Your task to perform on an android device: open app "Firefox Browser" Image 0: 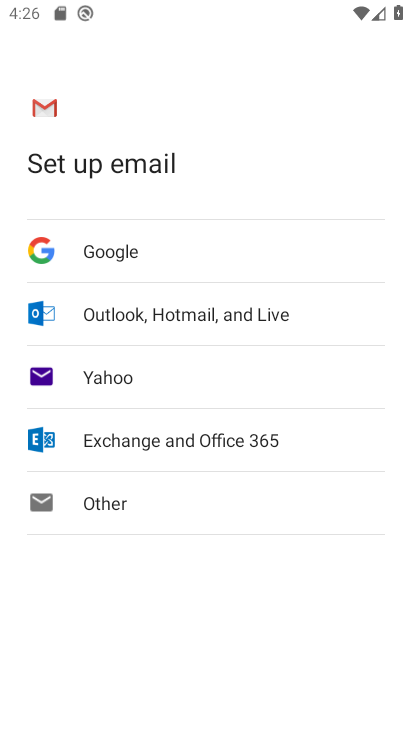
Step 0: press home button
Your task to perform on an android device: open app "Firefox Browser" Image 1: 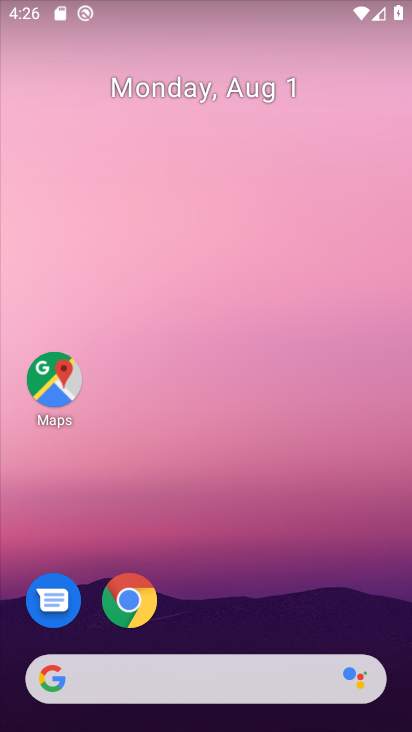
Step 1: drag from (311, 575) to (217, 1)
Your task to perform on an android device: open app "Firefox Browser" Image 2: 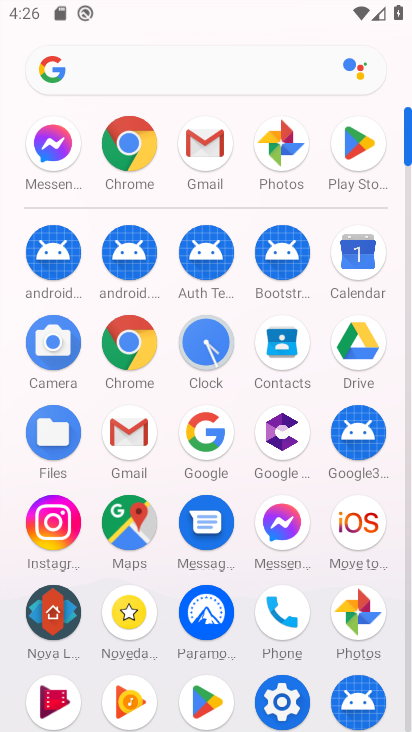
Step 2: click (354, 144)
Your task to perform on an android device: open app "Firefox Browser" Image 3: 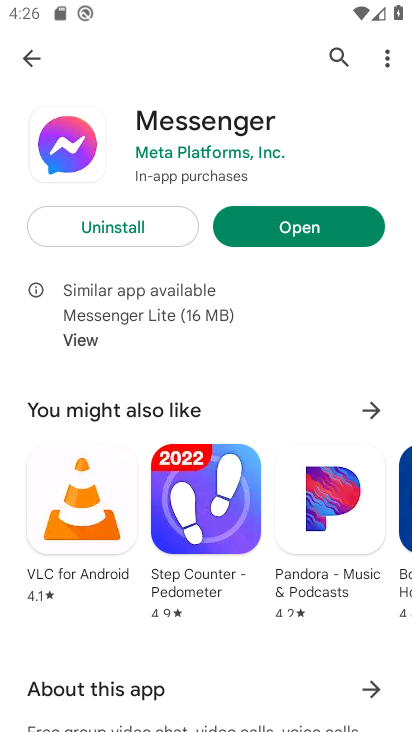
Step 3: click (334, 52)
Your task to perform on an android device: open app "Firefox Browser" Image 4: 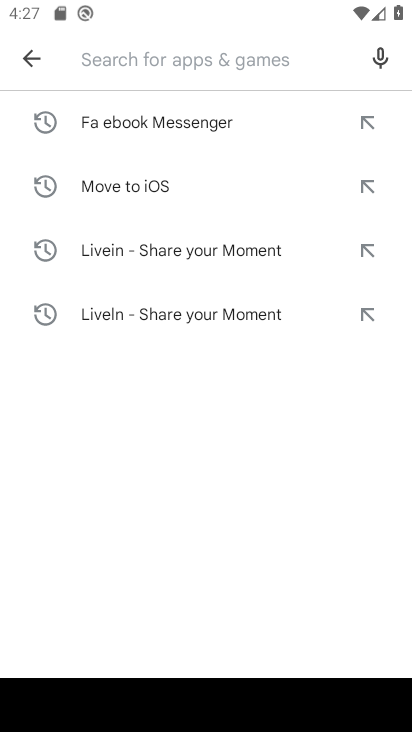
Step 4: type "Firefox Browser"
Your task to perform on an android device: open app "Firefox Browser" Image 5: 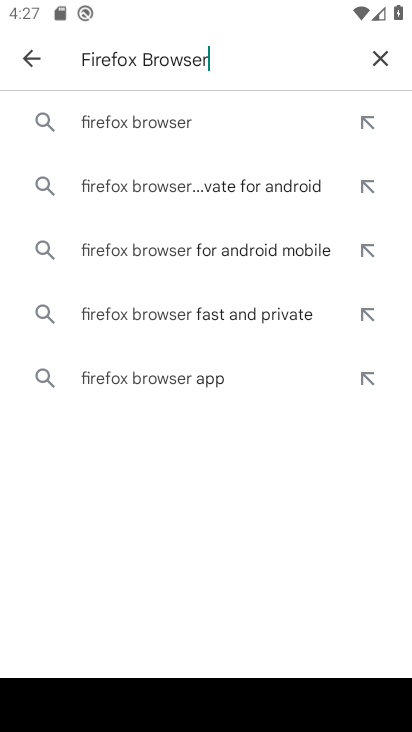
Step 5: press enter
Your task to perform on an android device: open app "Firefox Browser" Image 6: 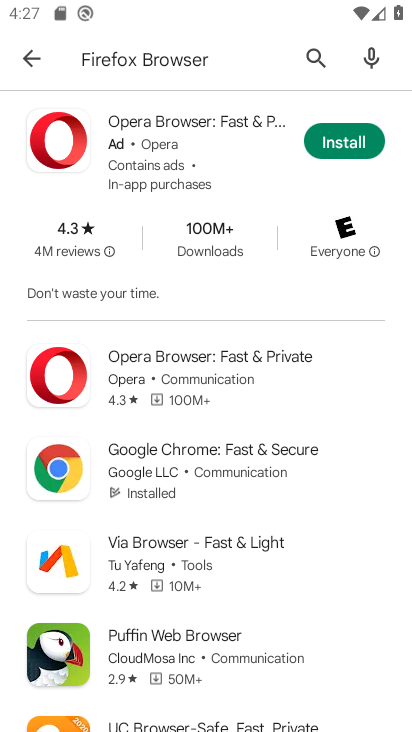
Step 6: click (195, 133)
Your task to perform on an android device: open app "Firefox Browser" Image 7: 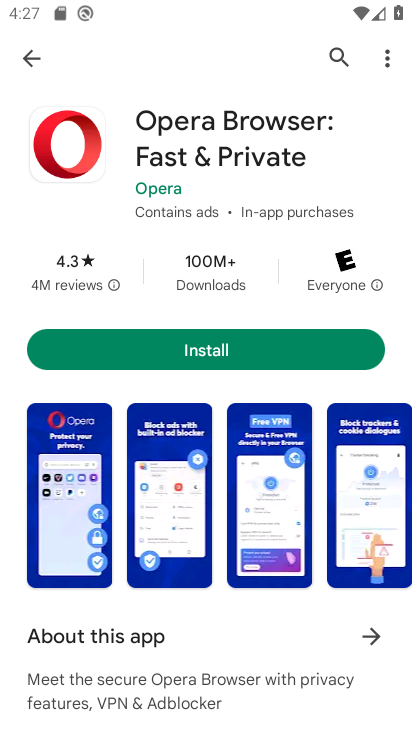
Step 7: click (25, 55)
Your task to perform on an android device: open app "Firefox Browser" Image 8: 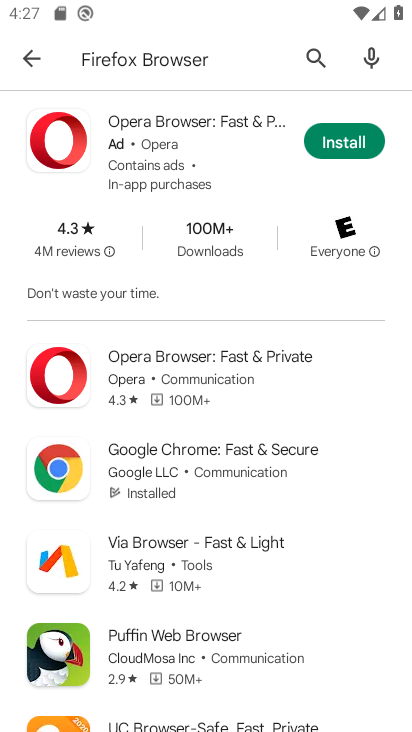
Step 8: task complete